Your task to perform on an android device: toggle wifi Image 0: 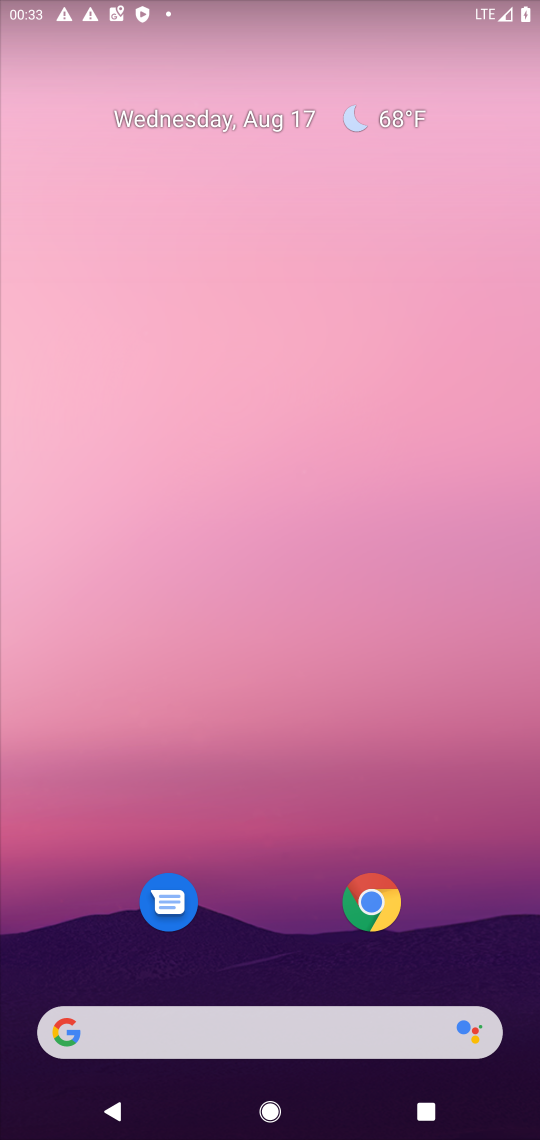
Step 0: drag from (222, 939) to (328, 35)
Your task to perform on an android device: toggle wifi Image 1: 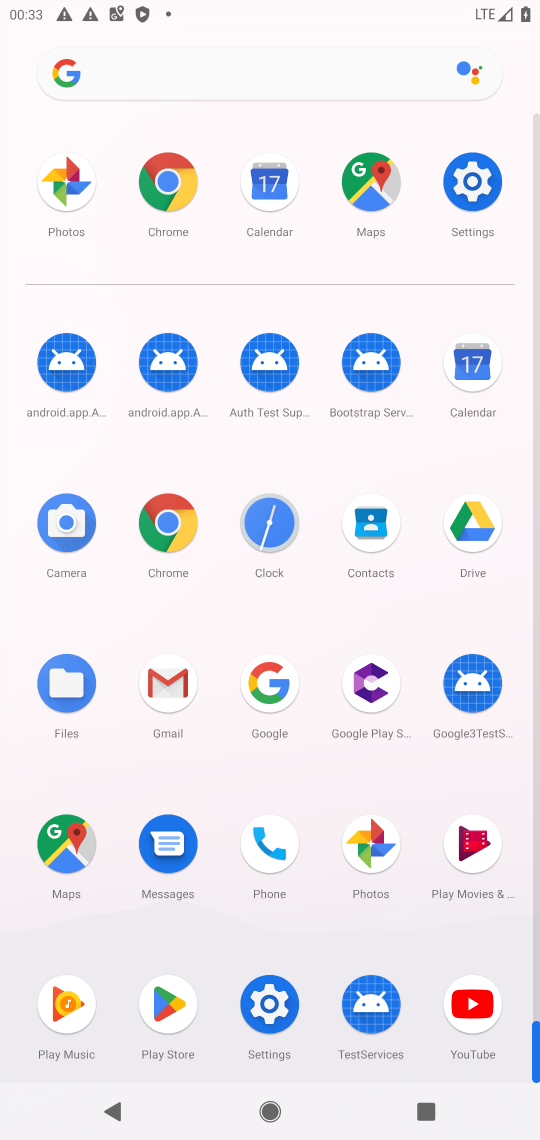
Step 1: click (280, 1025)
Your task to perform on an android device: toggle wifi Image 2: 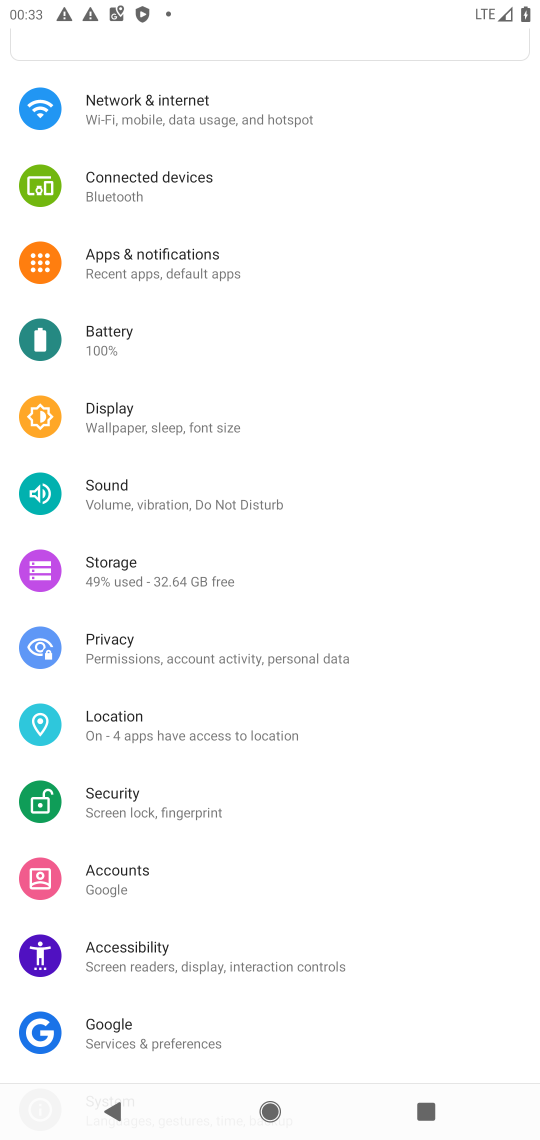
Step 2: drag from (257, 292) to (203, 995)
Your task to perform on an android device: toggle wifi Image 3: 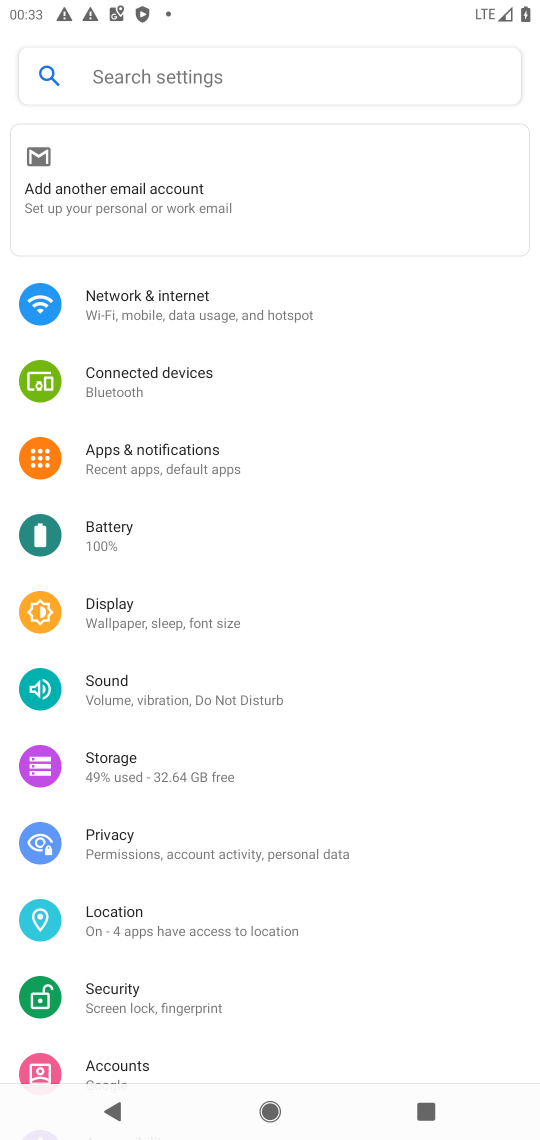
Step 3: click (213, 295)
Your task to perform on an android device: toggle wifi Image 4: 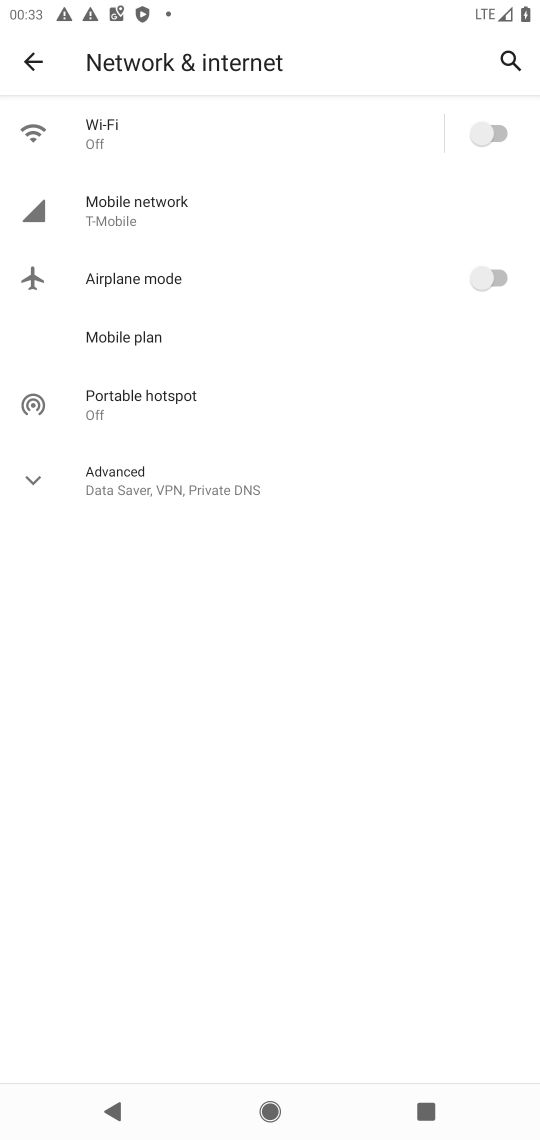
Step 4: click (510, 133)
Your task to perform on an android device: toggle wifi Image 5: 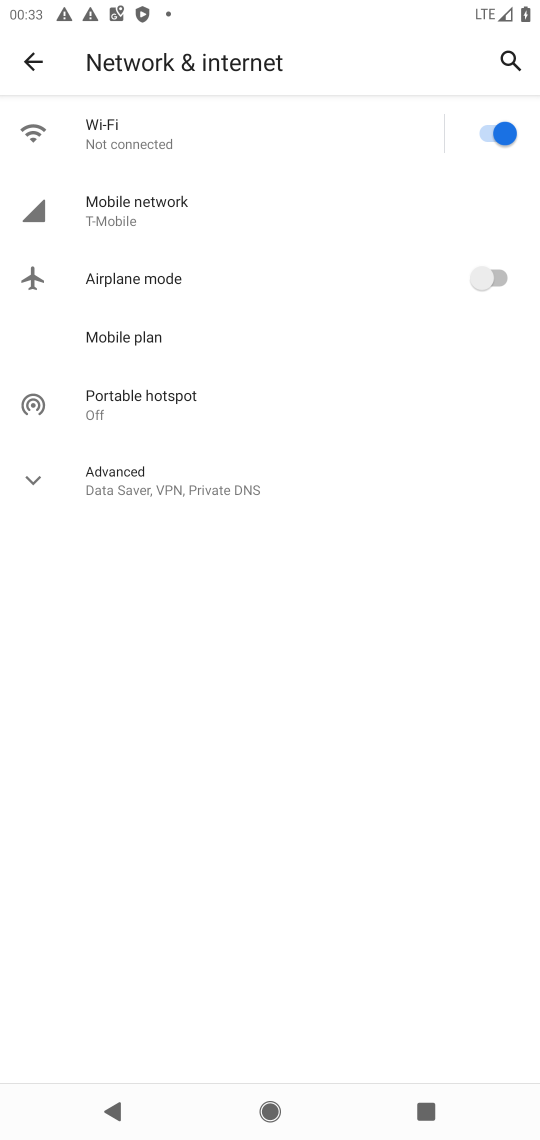
Step 5: task complete